Your task to perform on an android device: turn off javascript in the chrome app Image 0: 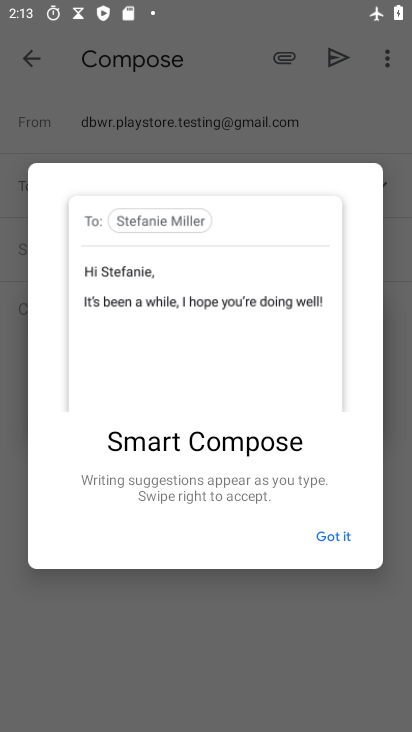
Step 0: press home button
Your task to perform on an android device: turn off javascript in the chrome app Image 1: 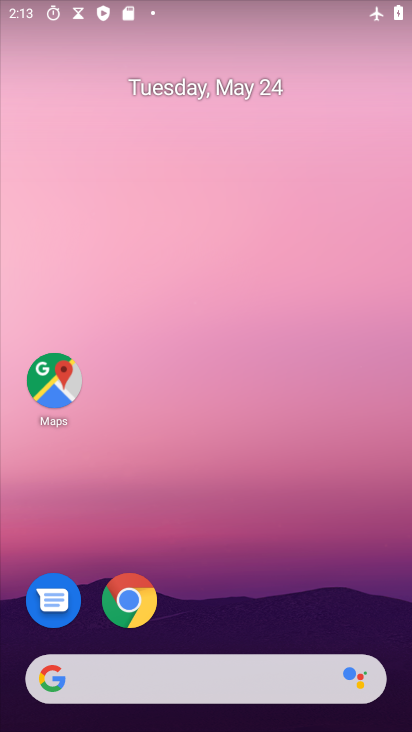
Step 1: click (128, 600)
Your task to perform on an android device: turn off javascript in the chrome app Image 2: 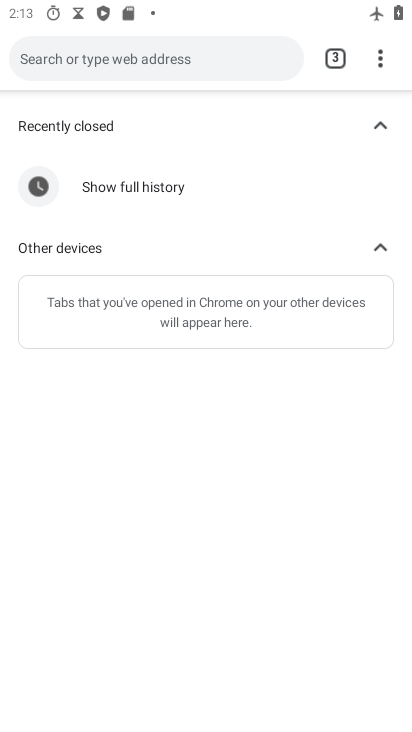
Step 2: click (375, 57)
Your task to perform on an android device: turn off javascript in the chrome app Image 3: 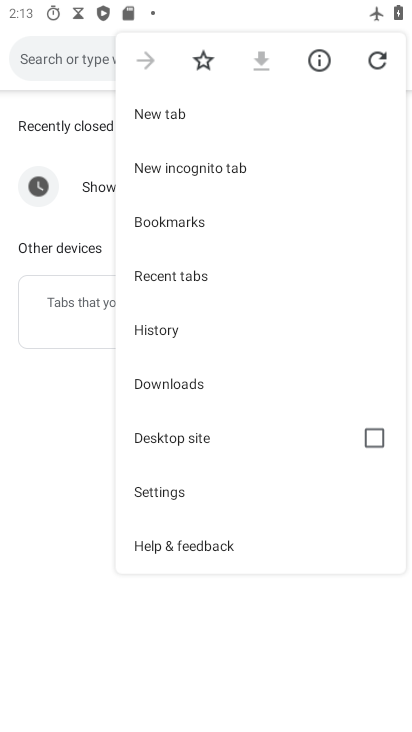
Step 3: click (200, 488)
Your task to perform on an android device: turn off javascript in the chrome app Image 4: 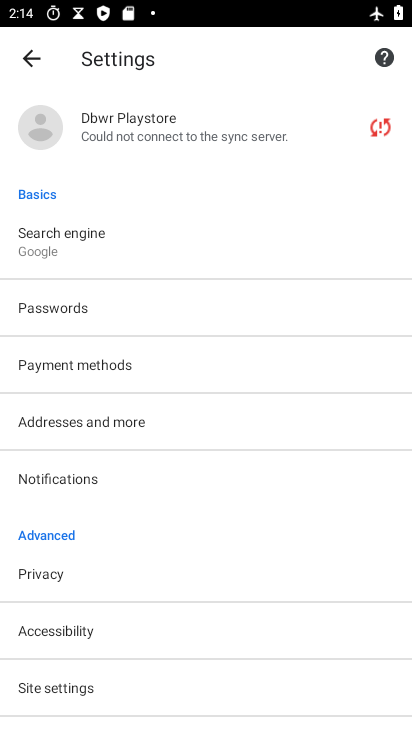
Step 4: click (197, 678)
Your task to perform on an android device: turn off javascript in the chrome app Image 5: 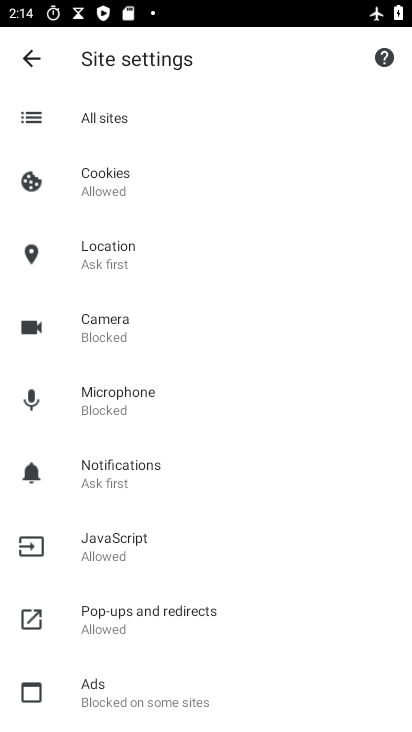
Step 5: click (168, 545)
Your task to perform on an android device: turn off javascript in the chrome app Image 6: 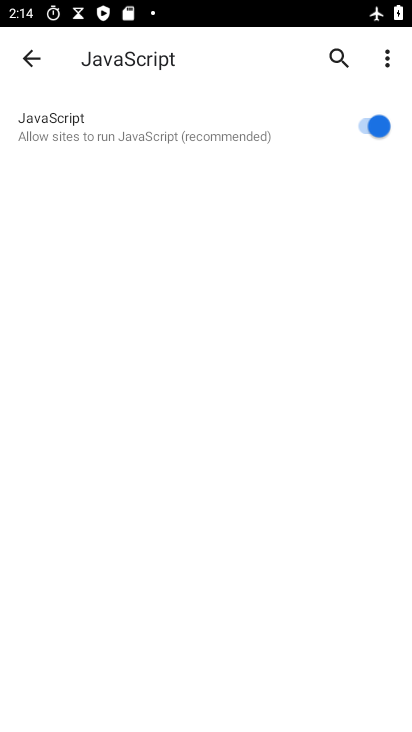
Step 6: click (375, 123)
Your task to perform on an android device: turn off javascript in the chrome app Image 7: 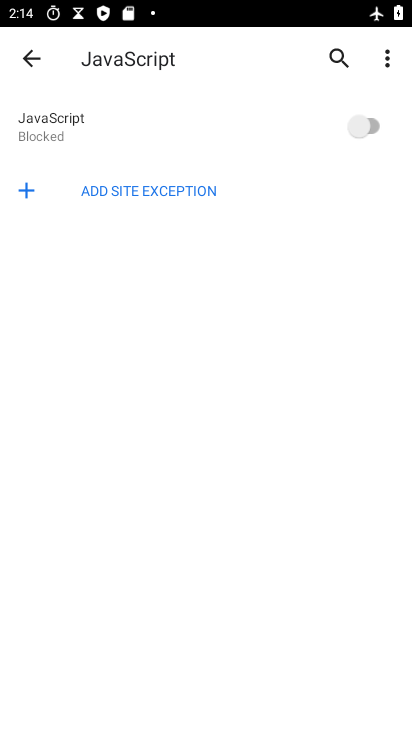
Step 7: task complete